Your task to perform on an android device: open app "DuckDuckGo Privacy Browser" (install if not already installed) and enter user name: "cleaving@outlook.com" and password: "freighters" Image 0: 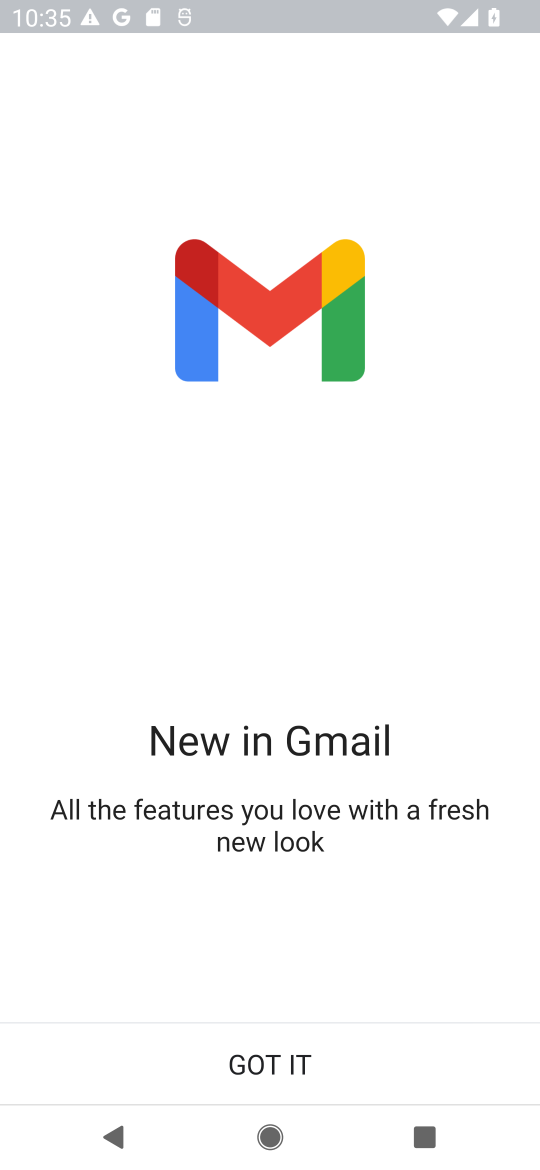
Step 0: press home button
Your task to perform on an android device: open app "DuckDuckGo Privacy Browser" (install if not already installed) and enter user name: "cleaving@outlook.com" and password: "freighters" Image 1: 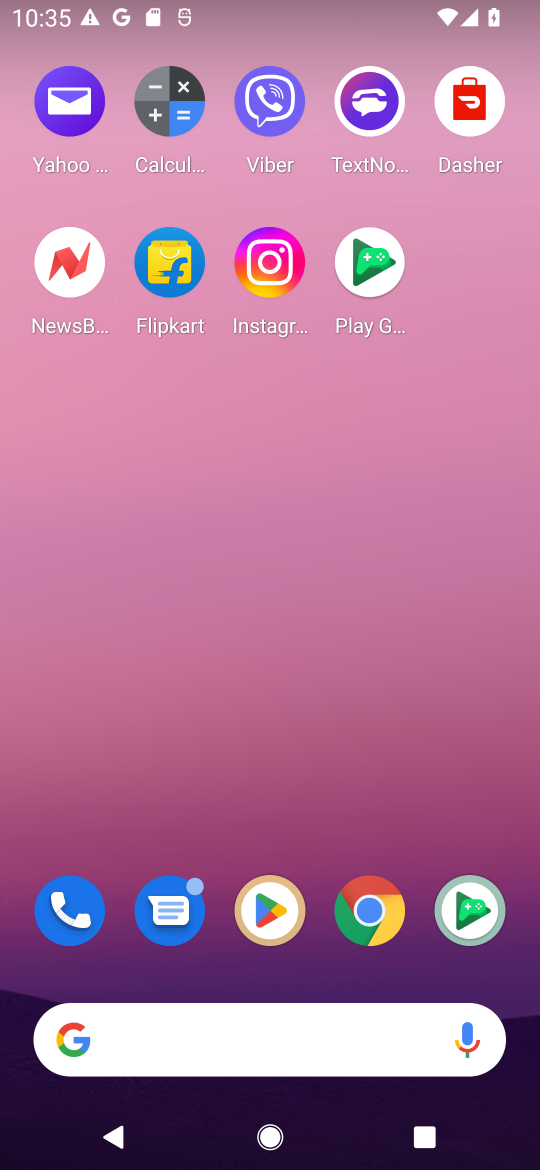
Step 1: click (273, 898)
Your task to perform on an android device: open app "DuckDuckGo Privacy Browser" (install if not already installed) and enter user name: "cleaving@outlook.com" and password: "freighters" Image 2: 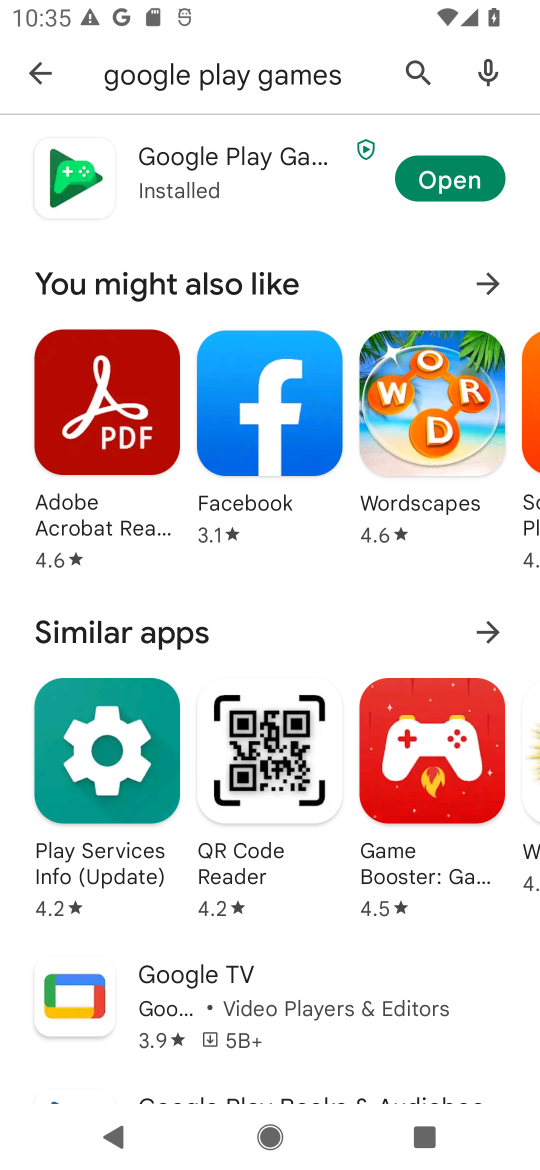
Step 2: click (411, 68)
Your task to perform on an android device: open app "DuckDuckGo Privacy Browser" (install if not already installed) and enter user name: "cleaving@outlook.com" and password: "freighters" Image 3: 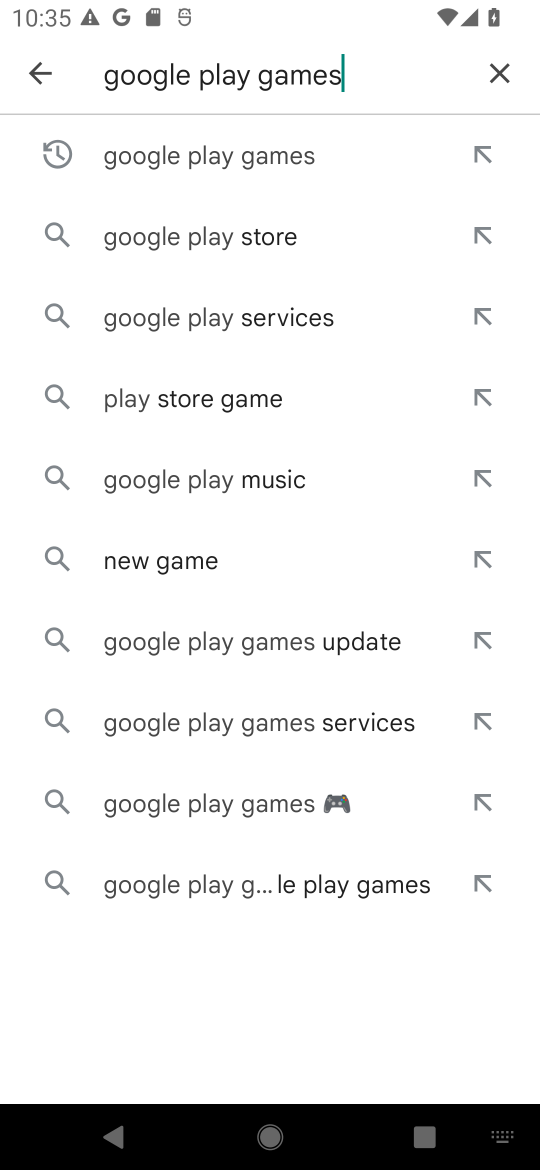
Step 3: click (497, 67)
Your task to perform on an android device: open app "DuckDuckGo Privacy Browser" (install if not already installed) and enter user name: "cleaving@outlook.com" and password: "freighters" Image 4: 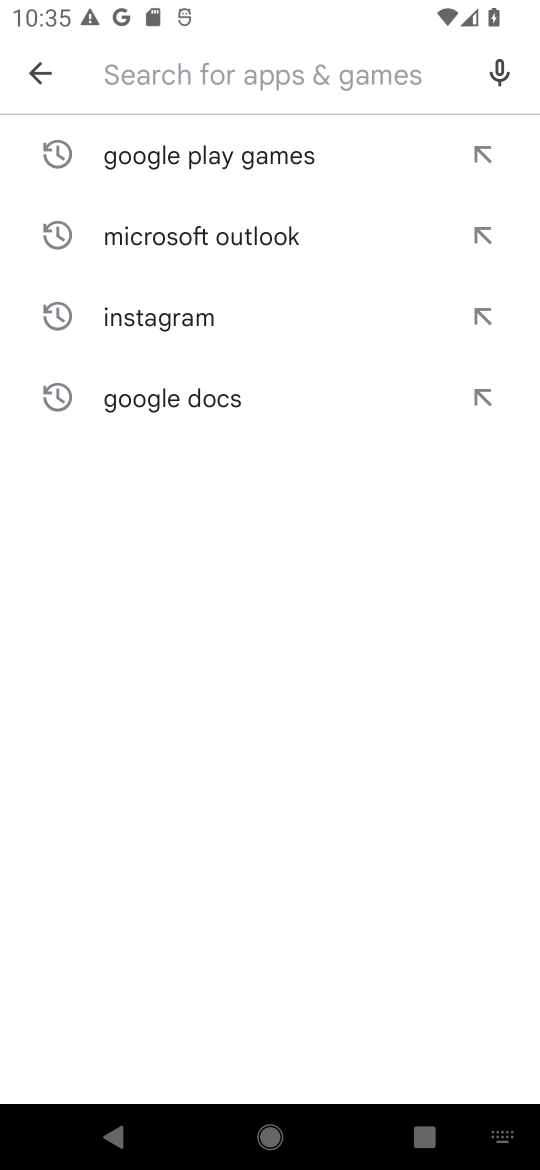
Step 4: type "DuckDuckGo Privacy Browser""
Your task to perform on an android device: open app "DuckDuckGo Privacy Browser" (install if not already installed) and enter user name: "cleaving@outlook.com" and password: "freighters" Image 5: 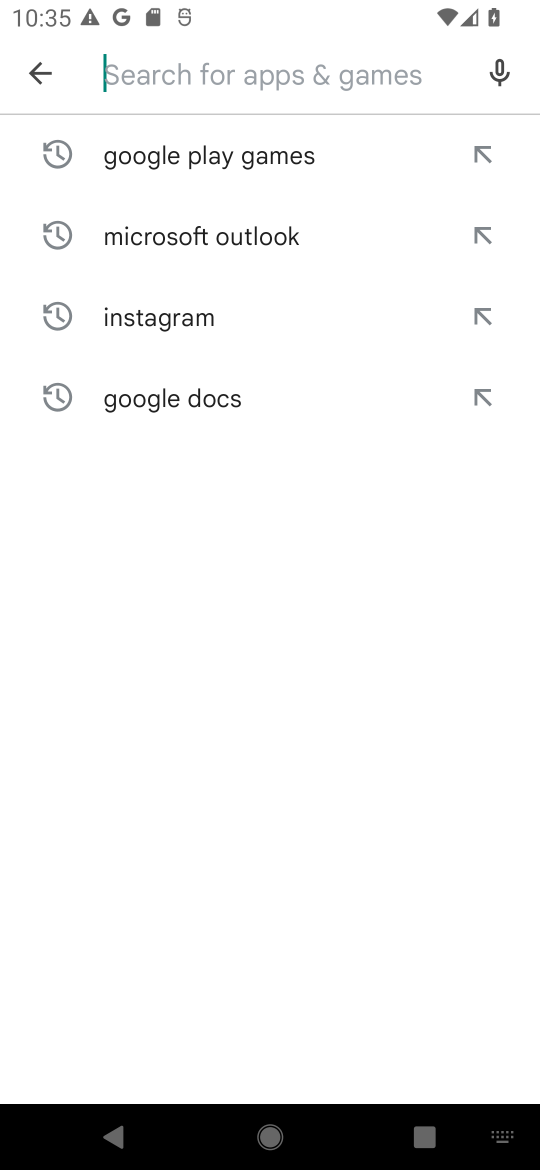
Step 5: type ""
Your task to perform on an android device: open app "DuckDuckGo Privacy Browser" (install if not already installed) and enter user name: "cleaving@outlook.com" and password: "freighters" Image 6: 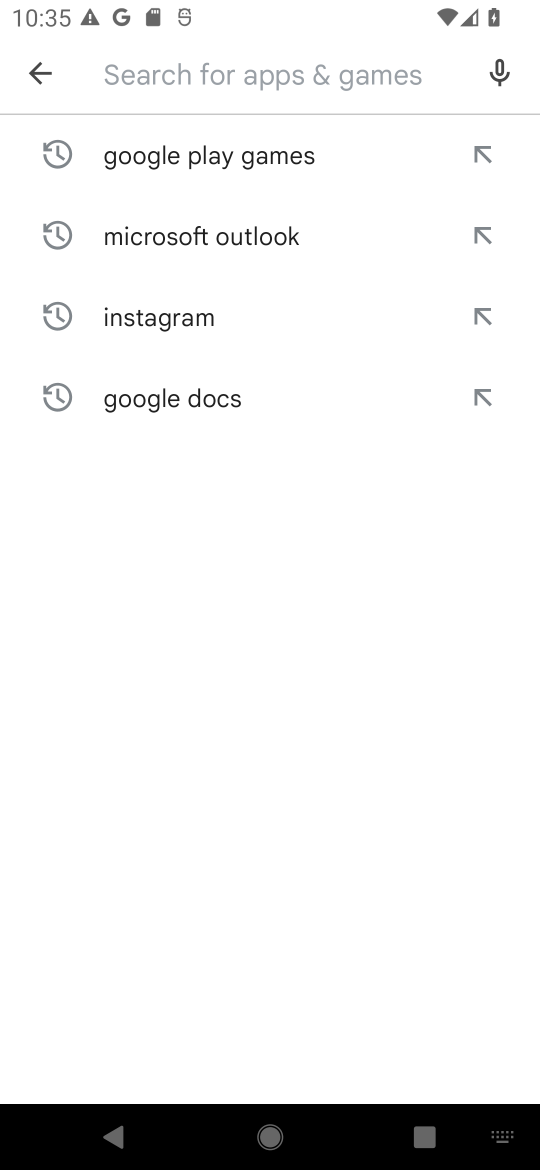
Step 6: type "DuckDuckGo Privacy Browser"
Your task to perform on an android device: open app "DuckDuckGo Privacy Browser" (install if not already installed) and enter user name: "cleaving@outlook.com" and password: "freighters" Image 7: 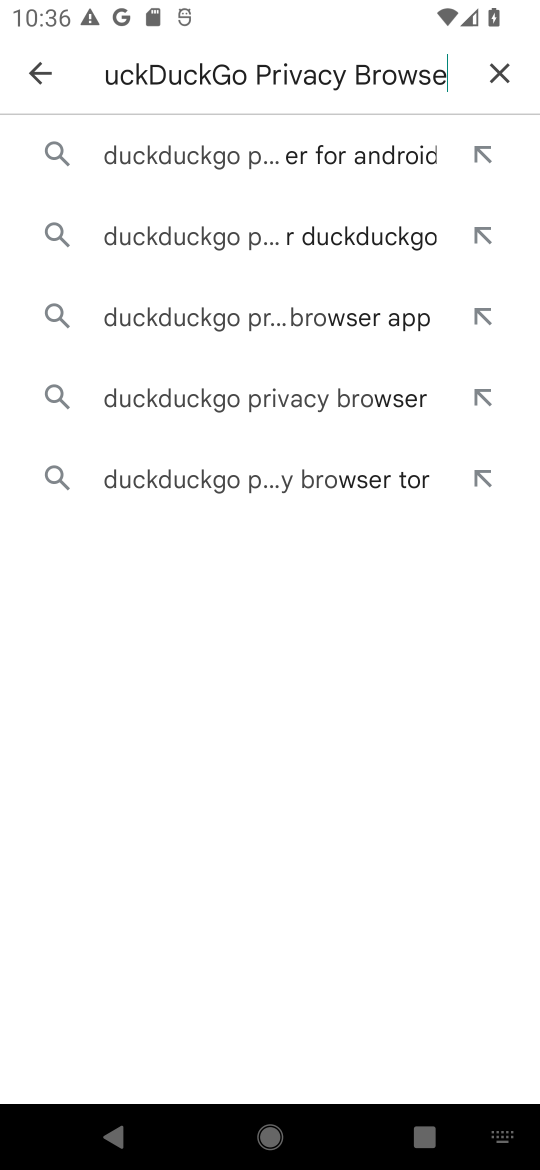
Step 7: type ""
Your task to perform on an android device: open app "DuckDuckGo Privacy Browser" (install if not already installed) and enter user name: "cleaving@outlook.com" and password: "freighters" Image 8: 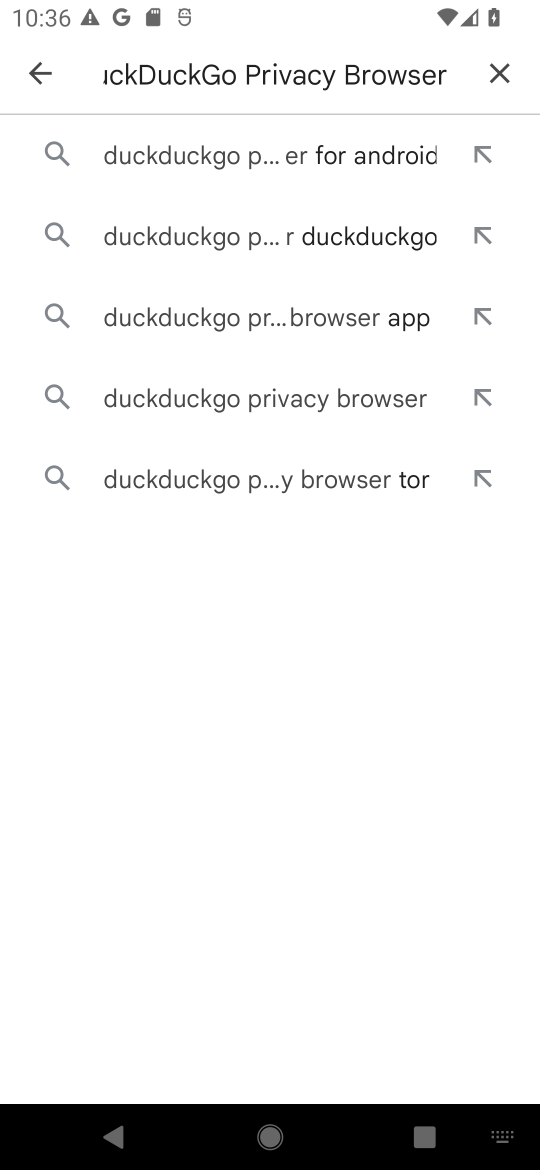
Step 8: click (156, 152)
Your task to perform on an android device: open app "DuckDuckGo Privacy Browser" (install if not already installed) and enter user name: "cleaving@outlook.com" and password: "freighters" Image 9: 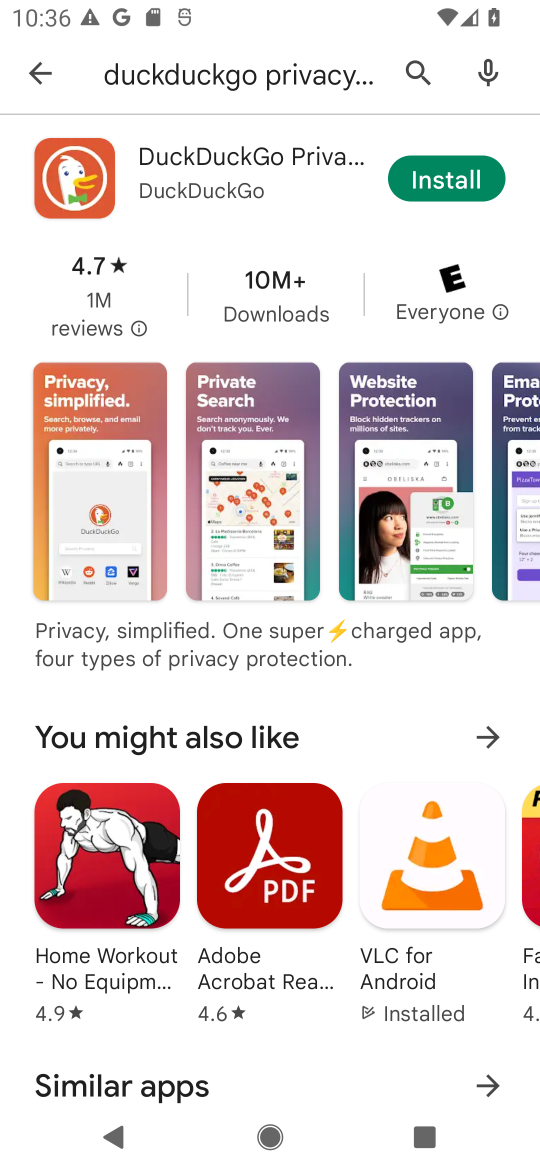
Step 9: click (465, 178)
Your task to perform on an android device: open app "DuckDuckGo Privacy Browser" (install if not already installed) and enter user name: "cleaving@outlook.com" and password: "freighters" Image 10: 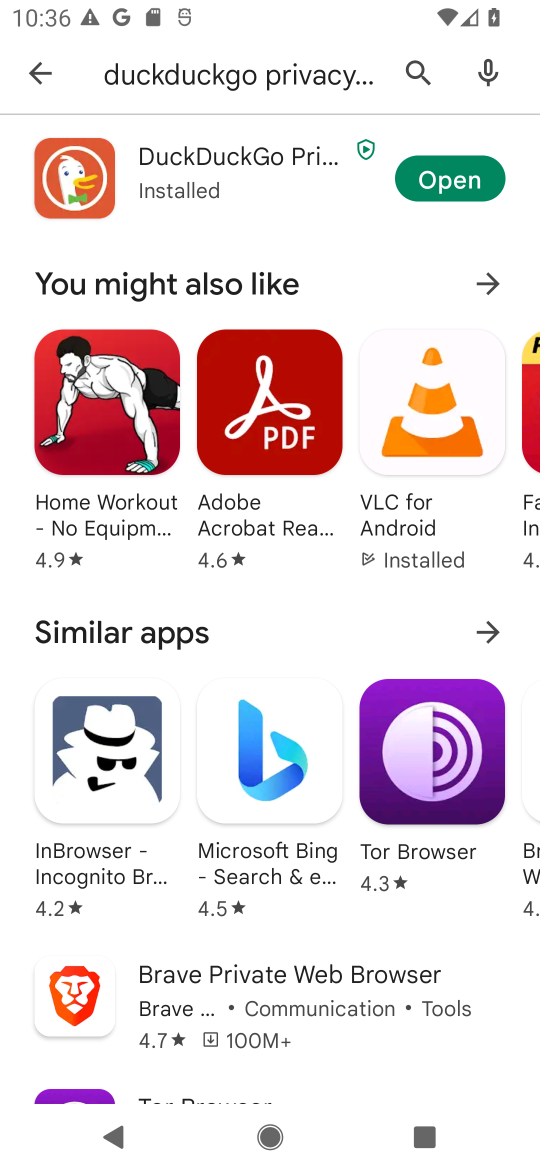
Step 10: click (465, 178)
Your task to perform on an android device: open app "DuckDuckGo Privacy Browser" (install if not already installed) and enter user name: "cleaving@outlook.com" and password: "freighters" Image 11: 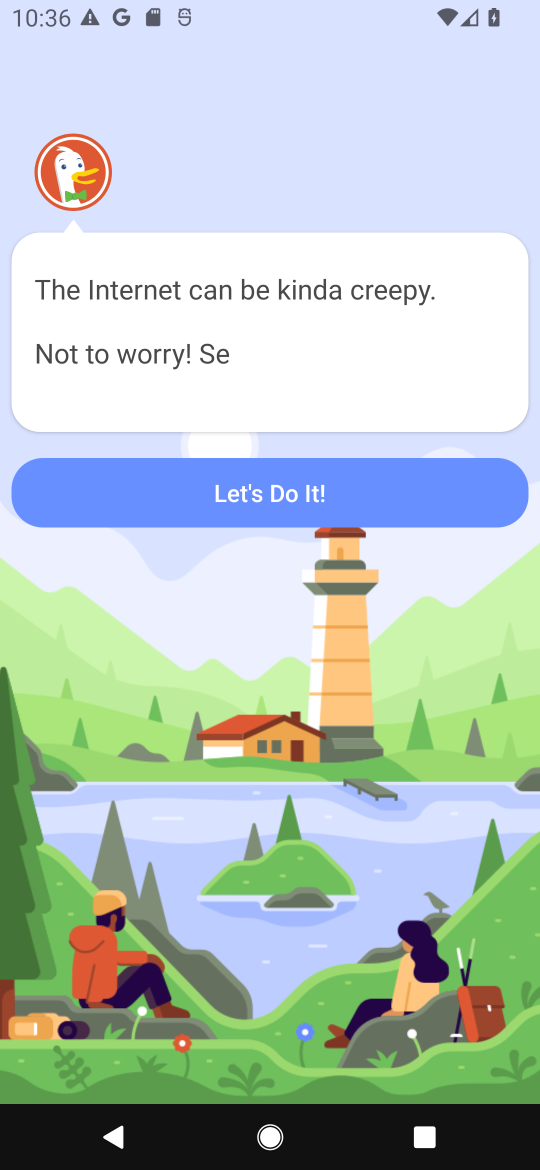
Step 11: task complete